Your task to perform on an android device: change timer sound Image 0: 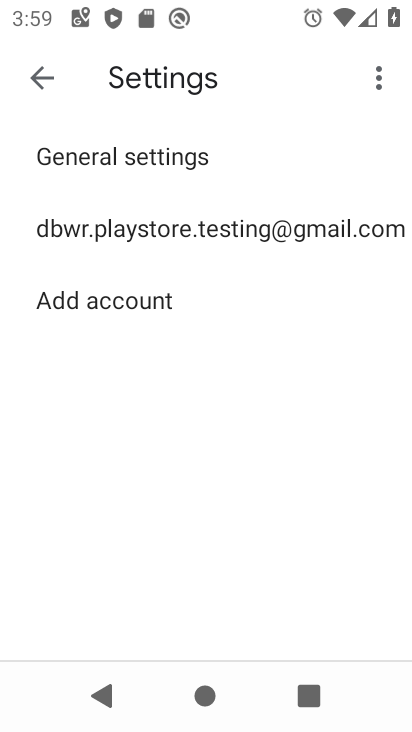
Step 0: press home button
Your task to perform on an android device: change timer sound Image 1: 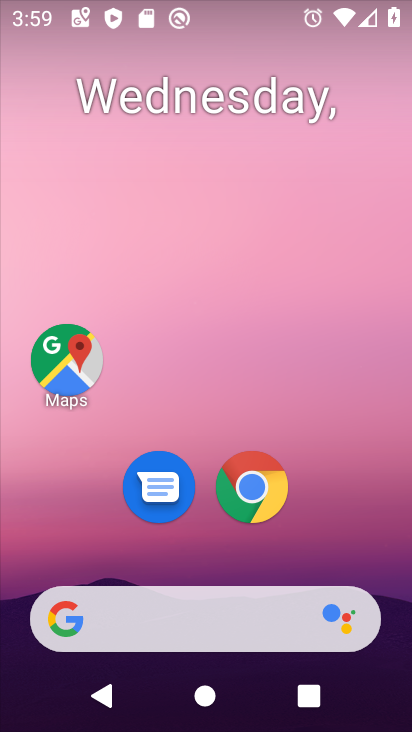
Step 1: drag from (390, 551) to (393, 128)
Your task to perform on an android device: change timer sound Image 2: 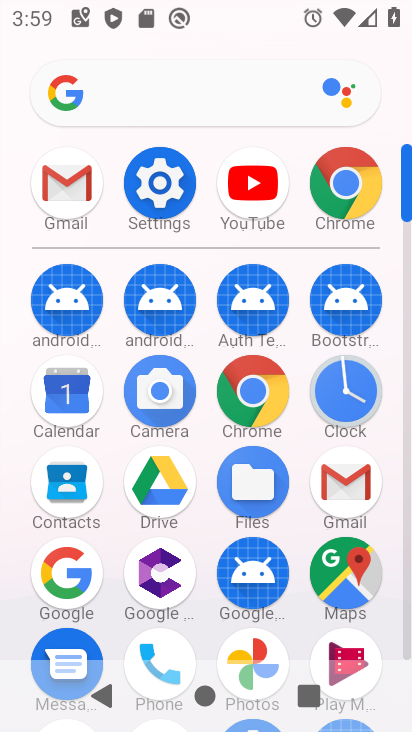
Step 2: click (354, 392)
Your task to perform on an android device: change timer sound Image 3: 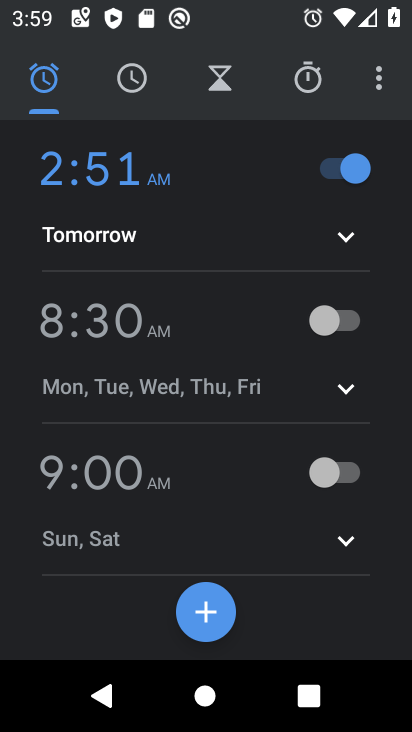
Step 3: click (379, 93)
Your task to perform on an android device: change timer sound Image 4: 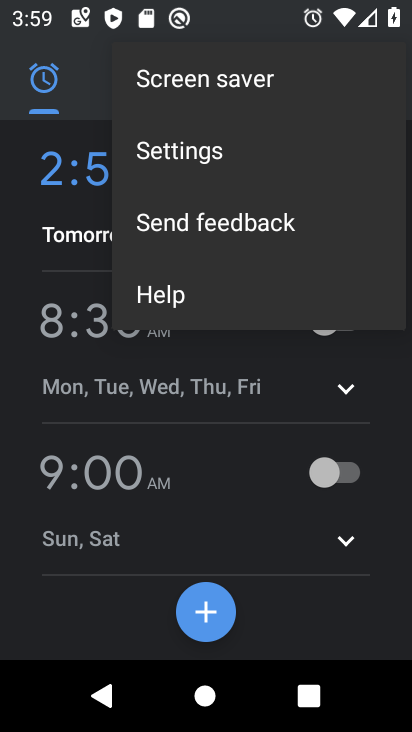
Step 4: click (250, 146)
Your task to perform on an android device: change timer sound Image 5: 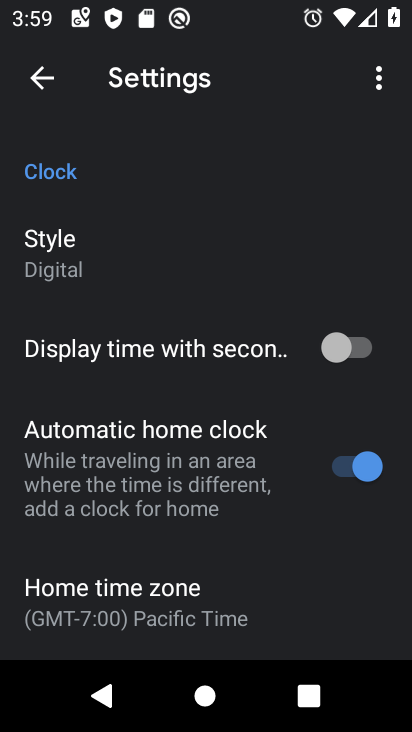
Step 5: drag from (292, 457) to (287, 339)
Your task to perform on an android device: change timer sound Image 6: 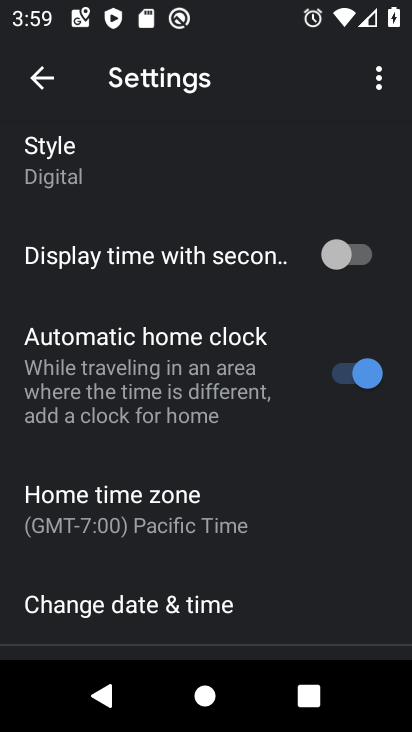
Step 6: drag from (298, 447) to (300, 341)
Your task to perform on an android device: change timer sound Image 7: 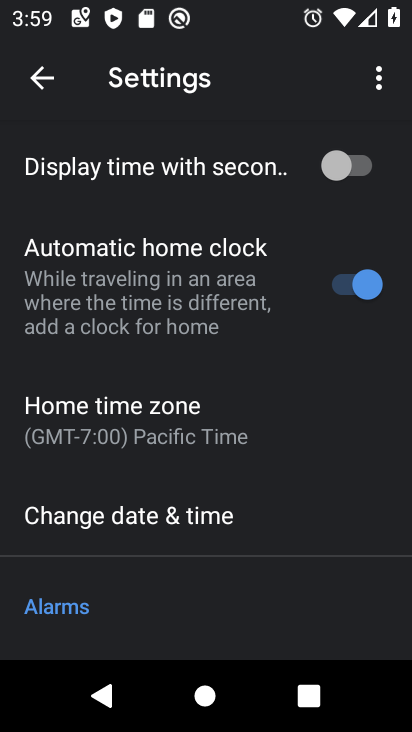
Step 7: drag from (303, 464) to (291, 339)
Your task to perform on an android device: change timer sound Image 8: 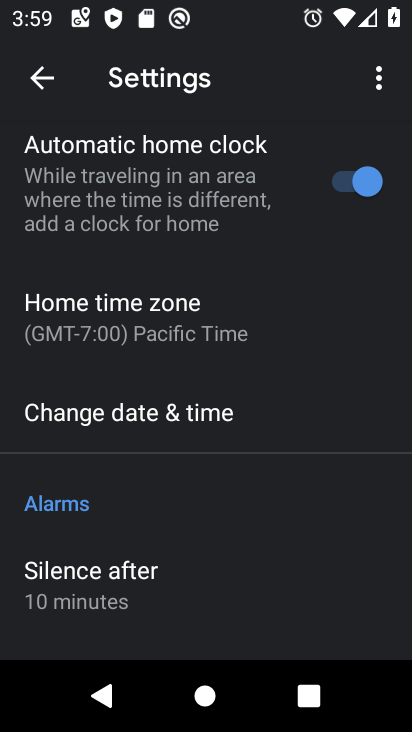
Step 8: drag from (293, 467) to (299, 353)
Your task to perform on an android device: change timer sound Image 9: 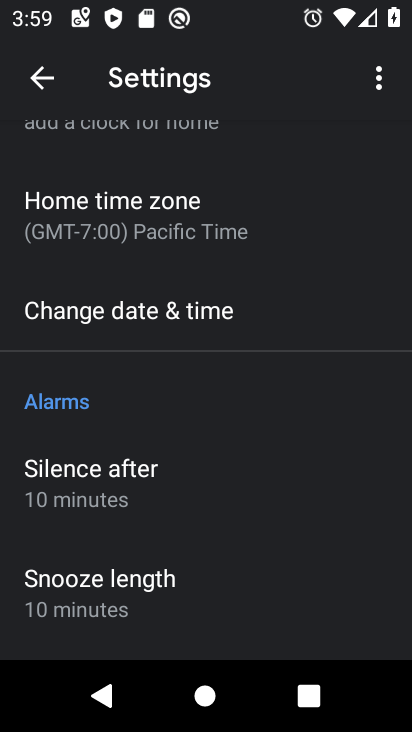
Step 9: drag from (308, 479) to (307, 370)
Your task to perform on an android device: change timer sound Image 10: 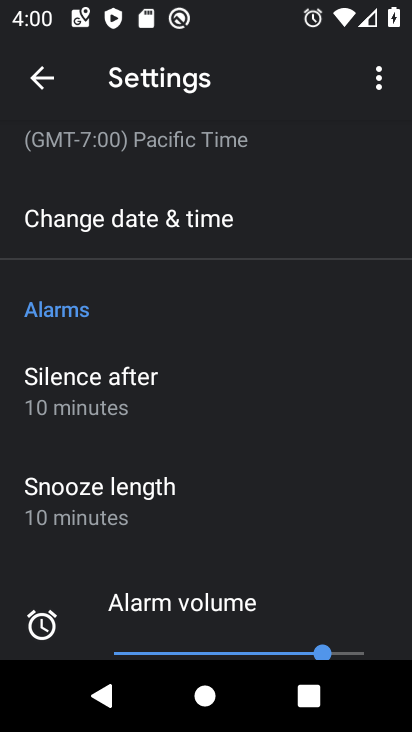
Step 10: drag from (310, 479) to (308, 351)
Your task to perform on an android device: change timer sound Image 11: 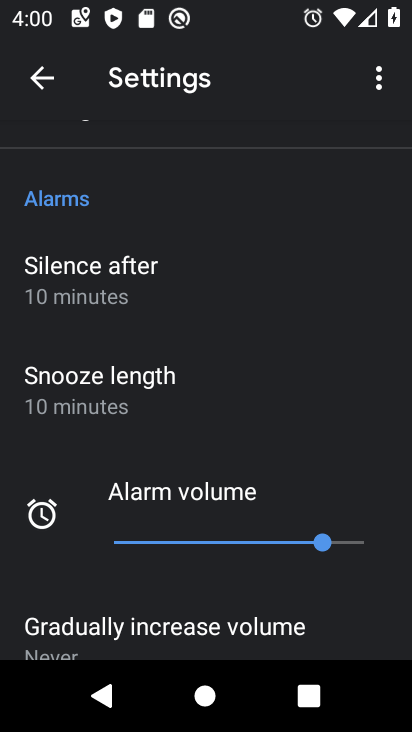
Step 11: drag from (300, 578) to (294, 401)
Your task to perform on an android device: change timer sound Image 12: 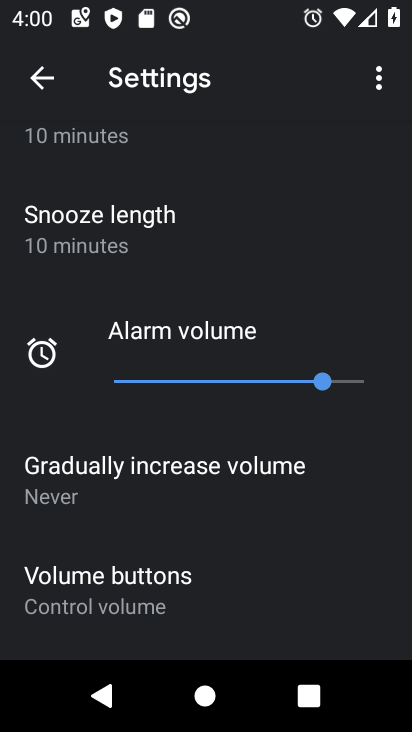
Step 12: drag from (301, 523) to (298, 431)
Your task to perform on an android device: change timer sound Image 13: 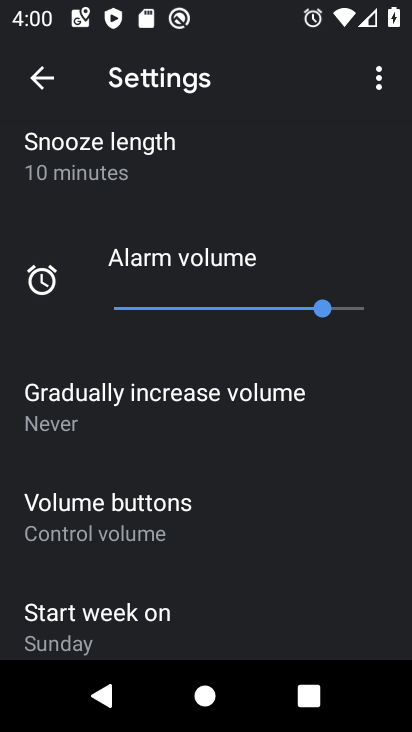
Step 13: drag from (291, 542) to (290, 358)
Your task to perform on an android device: change timer sound Image 14: 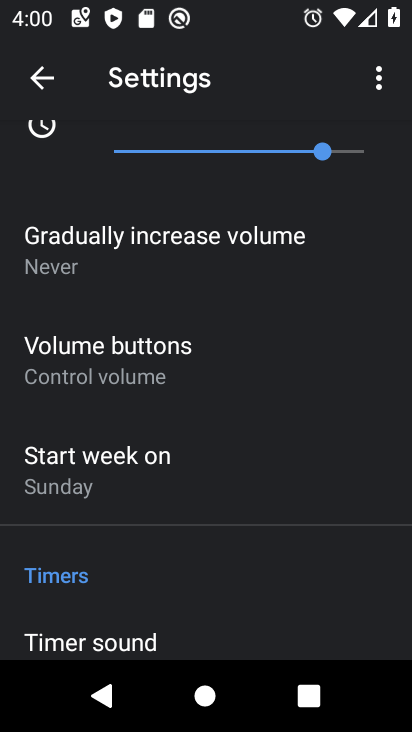
Step 14: drag from (279, 545) to (281, 397)
Your task to perform on an android device: change timer sound Image 15: 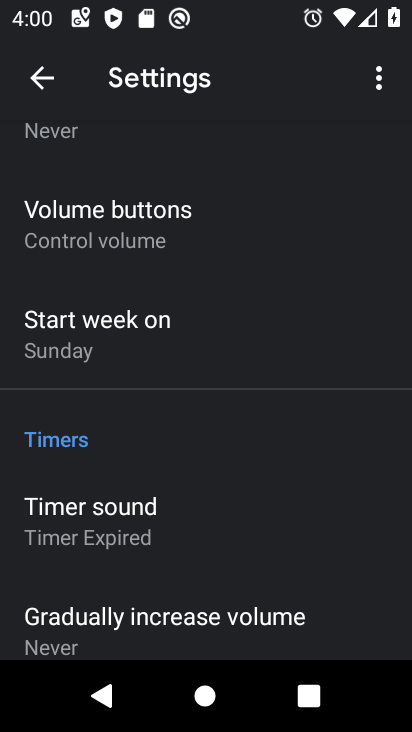
Step 15: click (218, 523)
Your task to perform on an android device: change timer sound Image 16: 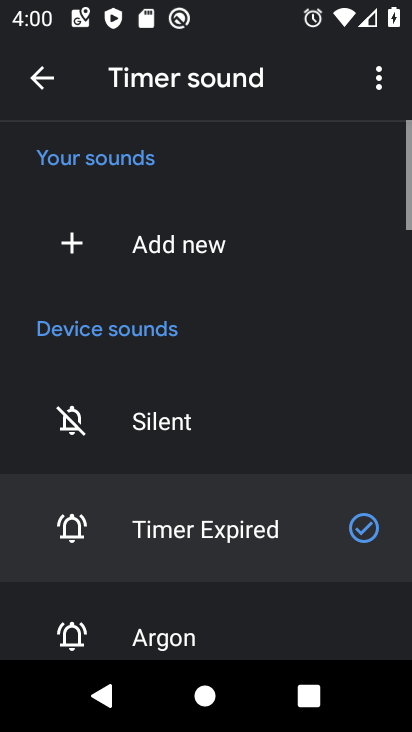
Step 16: click (196, 423)
Your task to perform on an android device: change timer sound Image 17: 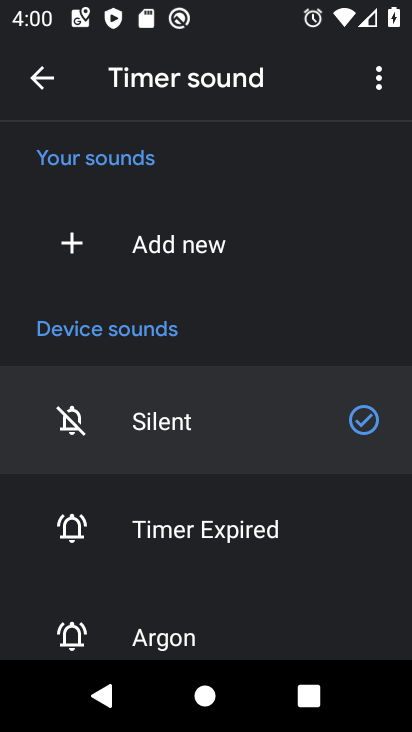
Step 17: task complete